Your task to perform on an android device: Search for Mexican restaurants on Maps Image 0: 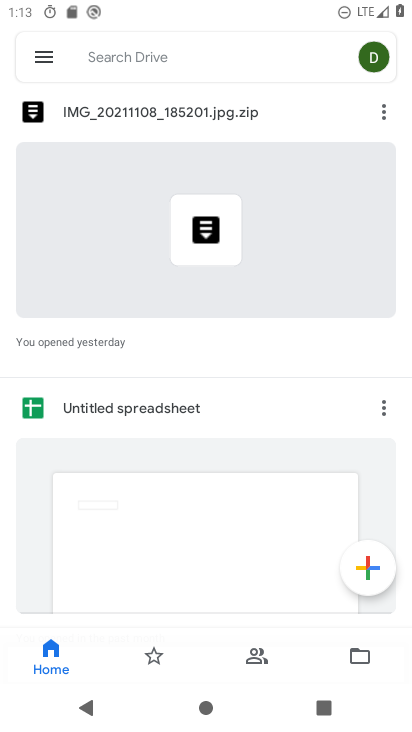
Step 0: press home button
Your task to perform on an android device: Search for Mexican restaurants on Maps Image 1: 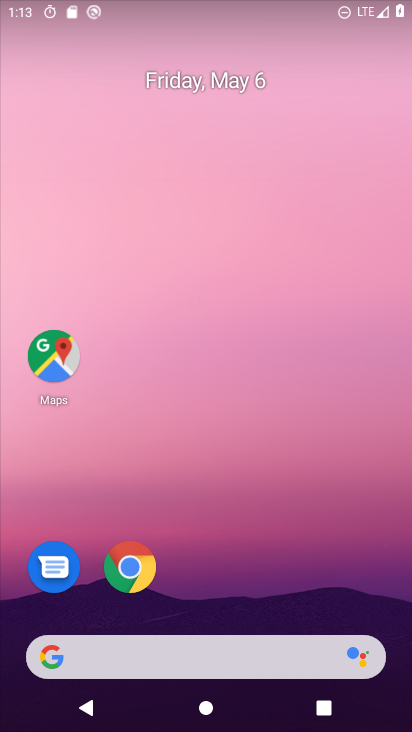
Step 1: click (48, 353)
Your task to perform on an android device: Search for Mexican restaurants on Maps Image 2: 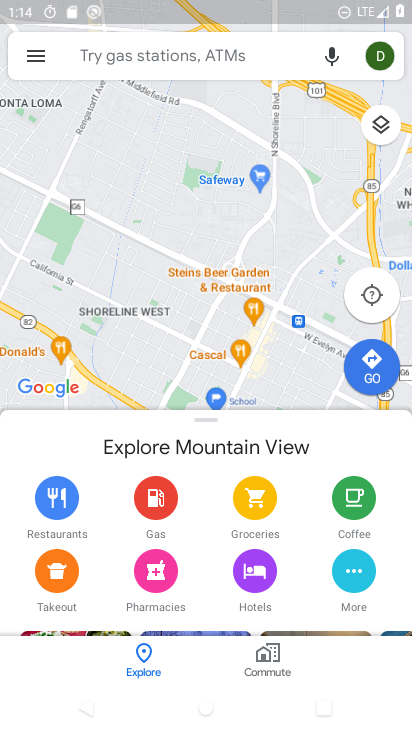
Step 2: click (86, 56)
Your task to perform on an android device: Search for Mexican restaurants on Maps Image 3: 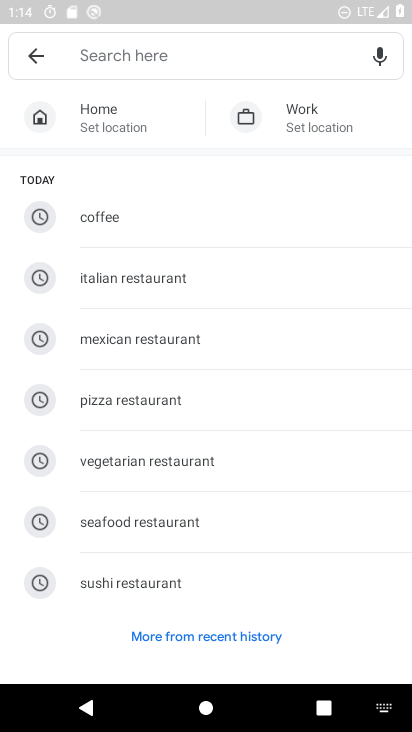
Step 3: type "mexican restaurant "
Your task to perform on an android device: Search for Mexican restaurants on Maps Image 4: 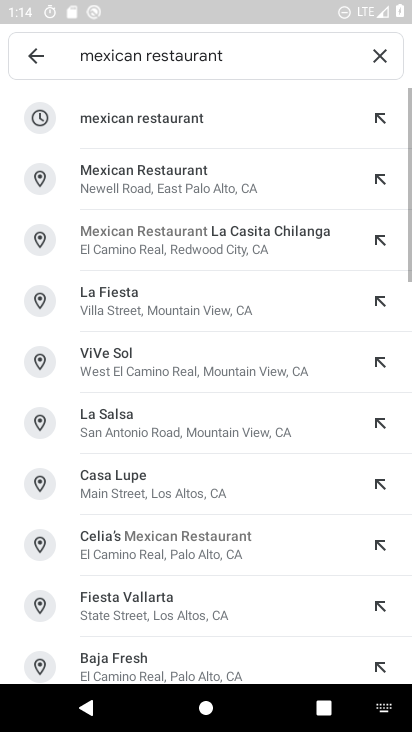
Step 4: click (141, 126)
Your task to perform on an android device: Search for Mexican restaurants on Maps Image 5: 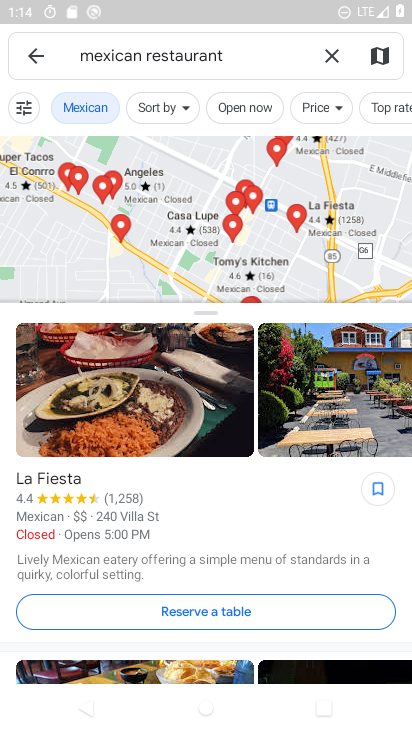
Step 5: task complete